Your task to perform on an android device: turn off picture-in-picture Image 0: 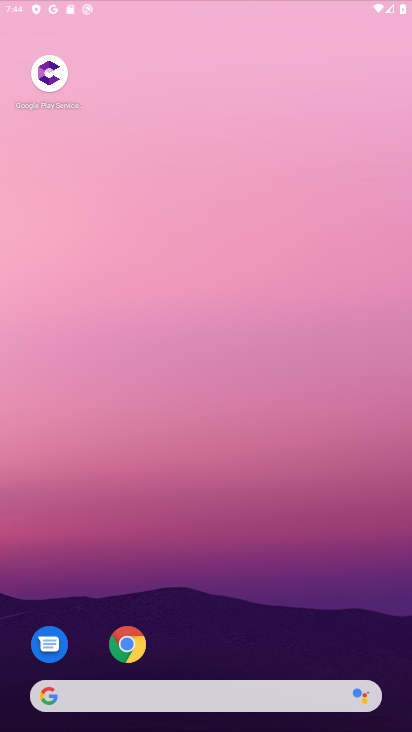
Step 0: drag from (253, 486) to (214, 188)
Your task to perform on an android device: turn off picture-in-picture Image 1: 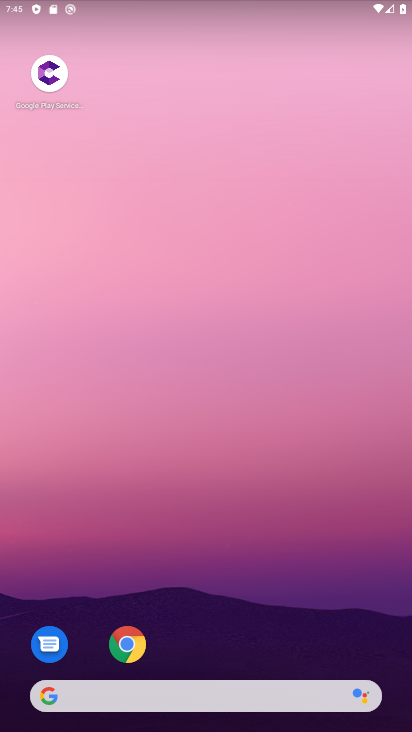
Step 1: drag from (223, 604) to (196, 164)
Your task to perform on an android device: turn off picture-in-picture Image 2: 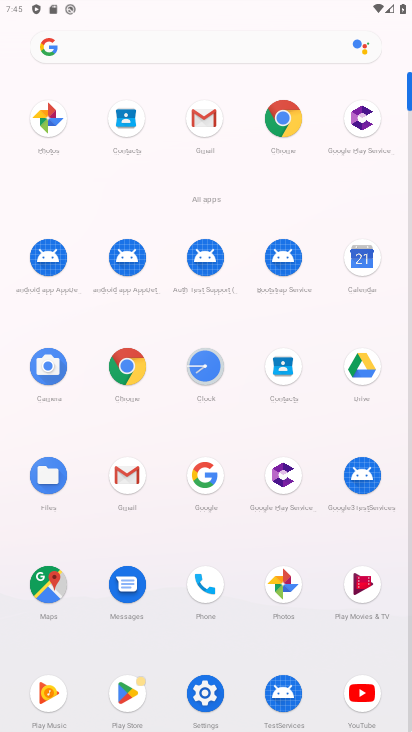
Step 2: click (288, 113)
Your task to perform on an android device: turn off picture-in-picture Image 3: 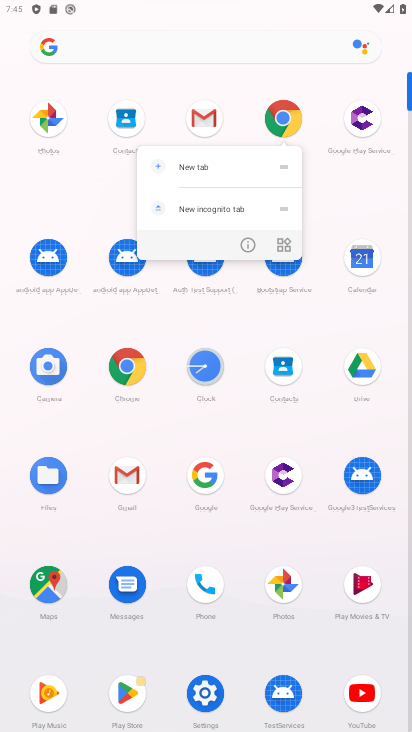
Step 3: click (251, 254)
Your task to perform on an android device: turn off picture-in-picture Image 4: 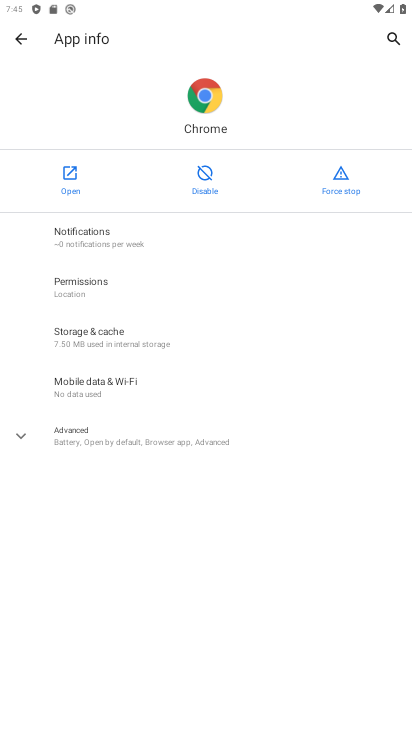
Step 4: click (74, 434)
Your task to perform on an android device: turn off picture-in-picture Image 5: 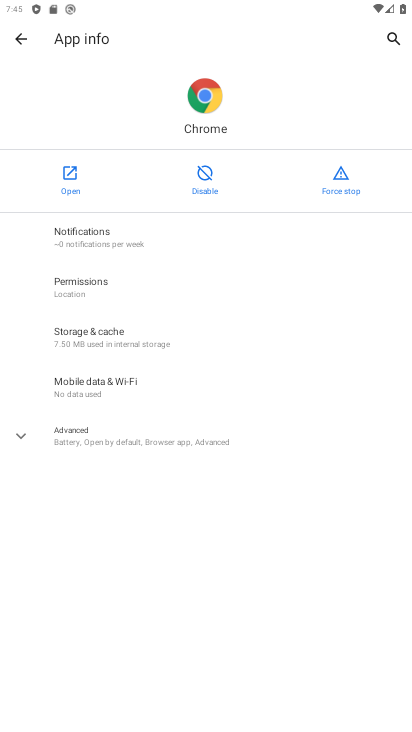
Step 5: click (74, 434)
Your task to perform on an android device: turn off picture-in-picture Image 6: 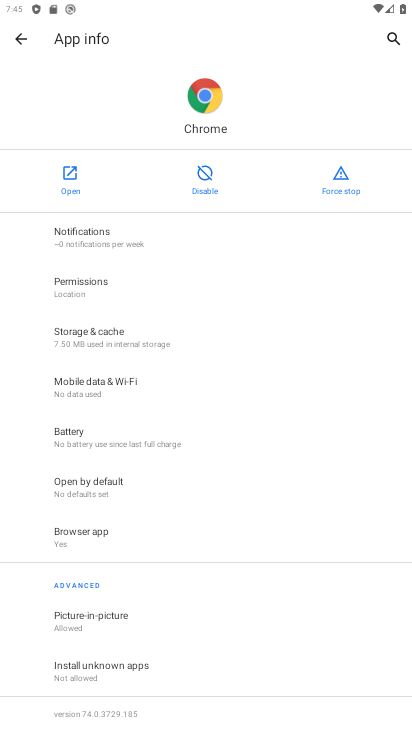
Step 6: drag from (133, 647) to (122, 328)
Your task to perform on an android device: turn off picture-in-picture Image 7: 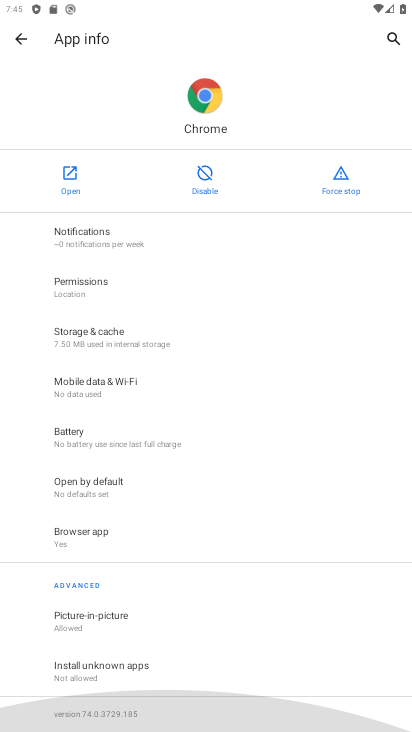
Step 7: drag from (131, 498) to (132, 421)
Your task to perform on an android device: turn off picture-in-picture Image 8: 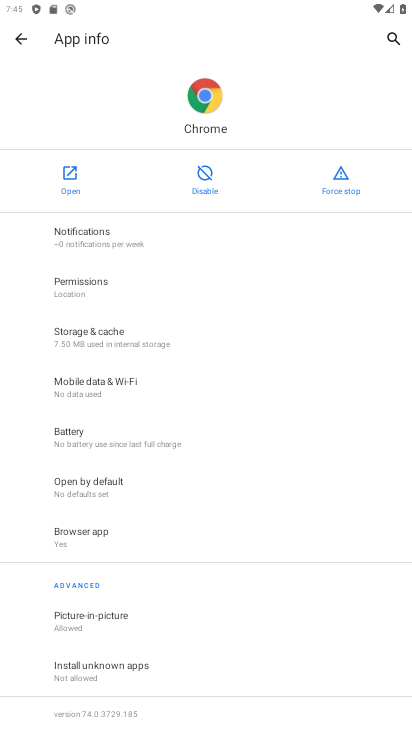
Step 8: click (76, 625)
Your task to perform on an android device: turn off picture-in-picture Image 9: 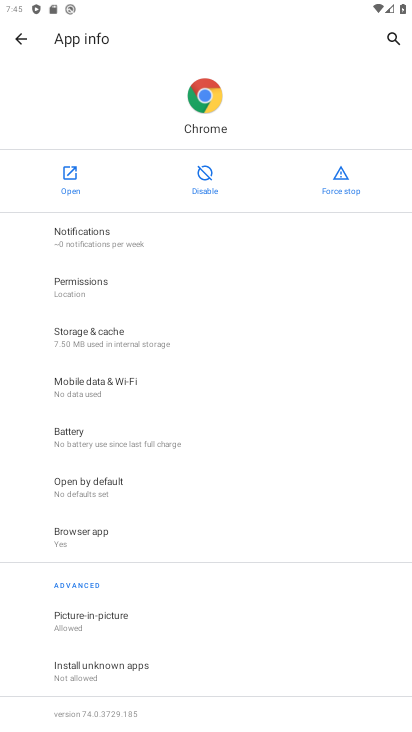
Step 9: click (73, 620)
Your task to perform on an android device: turn off picture-in-picture Image 10: 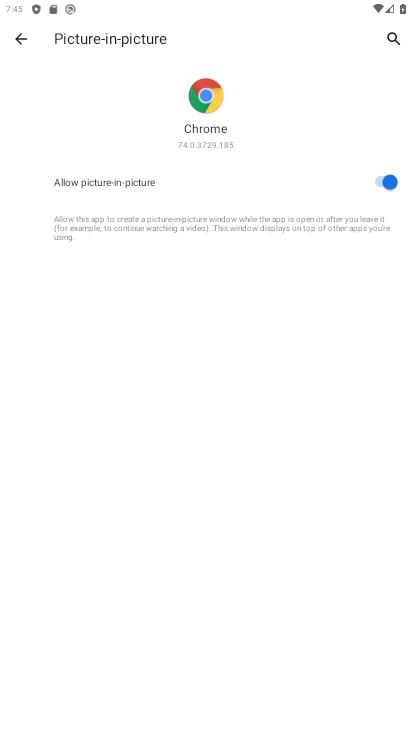
Step 10: click (391, 182)
Your task to perform on an android device: turn off picture-in-picture Image 11: 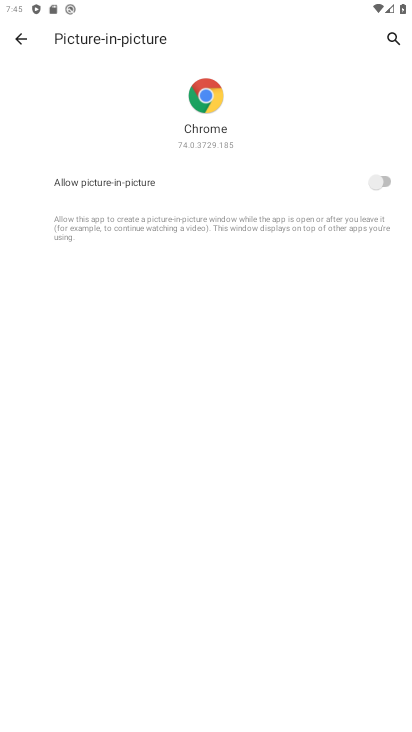
Step 11: task complete